Your task to perform on an android device: open a bookmark in the chrome app Image 0: 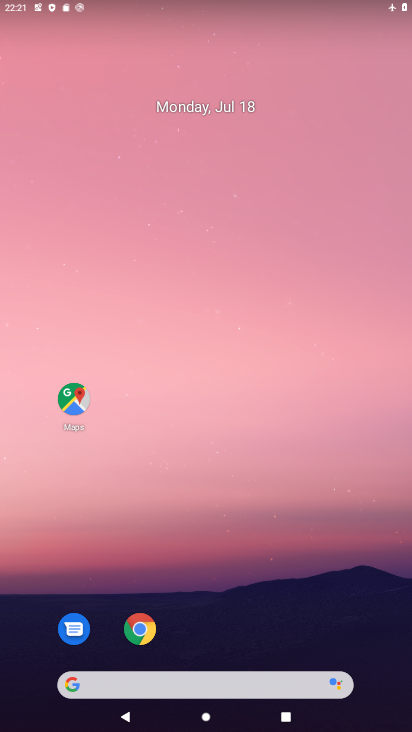
Step 0: drag from (344, 598) to (271, 95)
Your task to perform on an android device: open a bookmark in the chrome app Image 1: 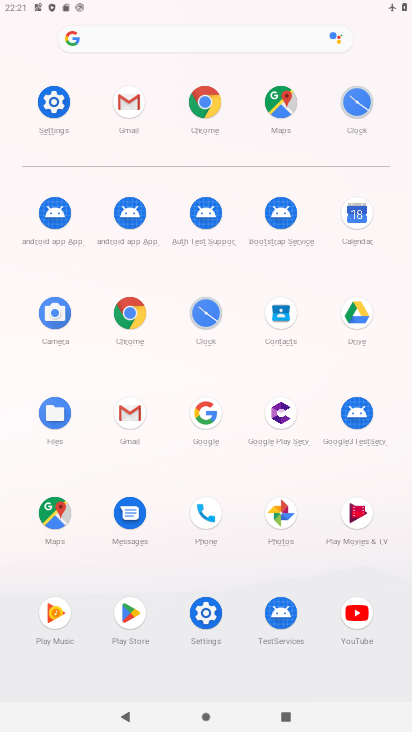
Step 1: click (206, 100)
Your task to perform on an android device: open a bookmark in the chrome app Image 2: 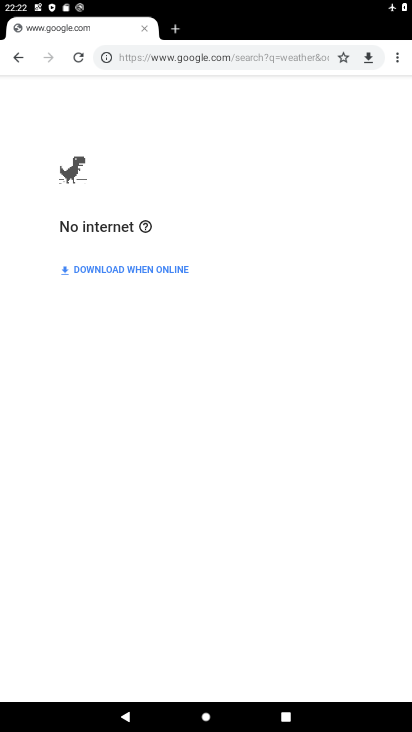
Step 2: drag from (392, 53) to (305, 165)
Your task to perform on an android device: open a bookmark in the chrome app Image 3: 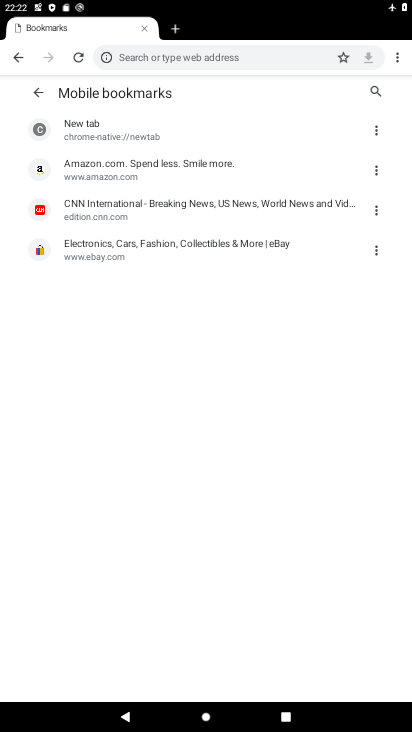
Step 3: click (122, 173)
Your task to perform on an android device: open a bookmark in the chrome app Image 4: 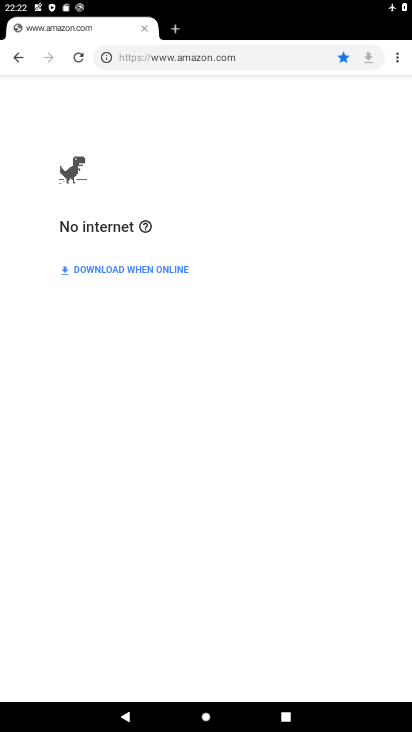
Step 4: task complete